Your task to perform on an android device: add a label to a message in the gmail app Image 0: 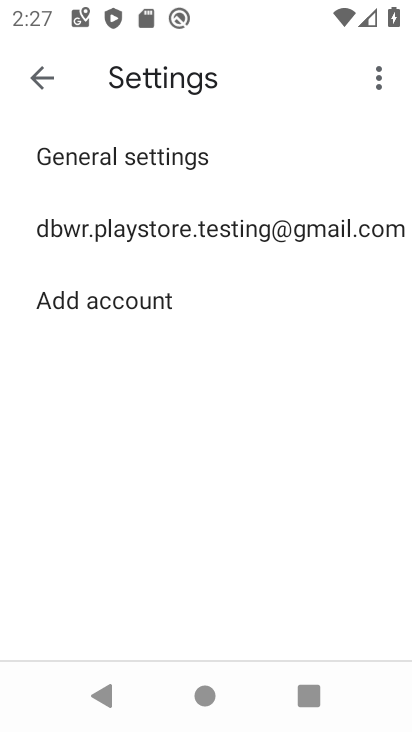
Step 0: press home button
Your task to perform on an android device: add a label to a message in the gmail app Image 1: 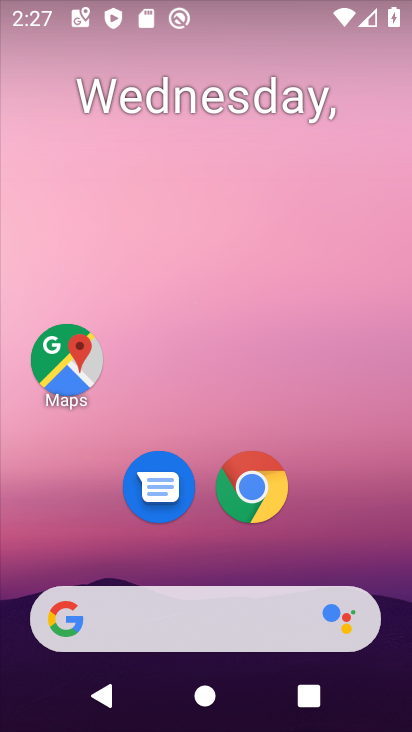
Step 1: drag from (336, 541) to (220, 64)
Your task to perform on an android device: add a label to a message in the gmail app Image 2: 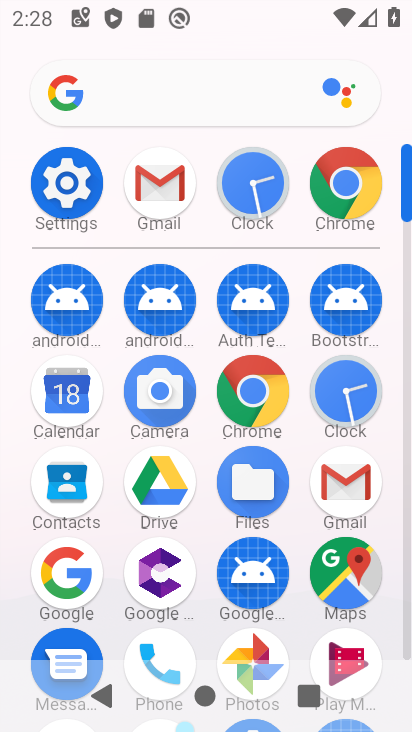
Step 2: click (340, 498)
Your task to perform on an android device: add a label to a message in the gmail app Image 3: 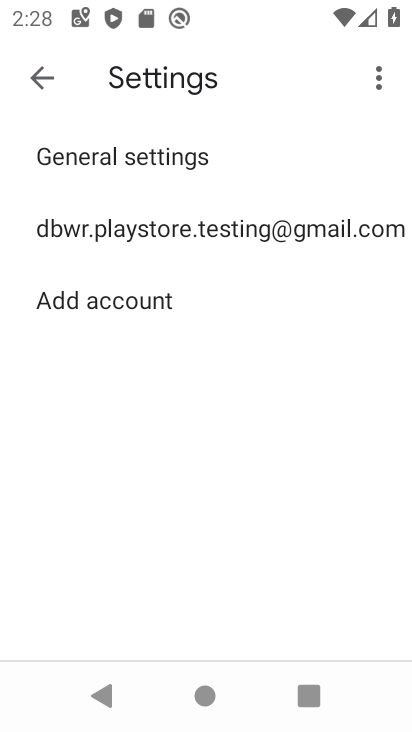
Step 3: click (30, 77)
Your task to perform on an android device: add a label to a message in the gmail app Image 4: 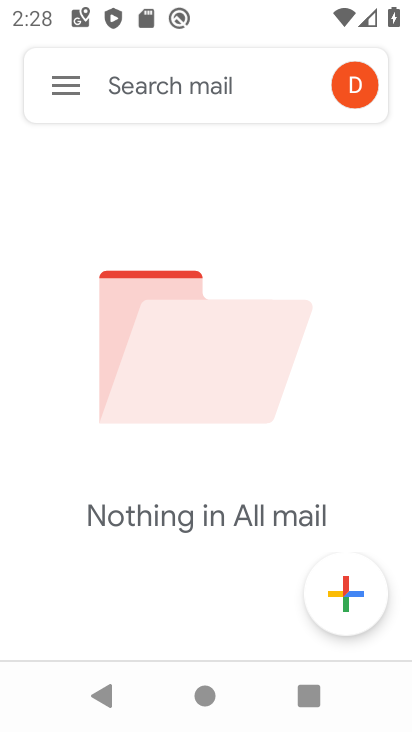
Step 4: click (62, 81)
Your task to perform on an android device: add a label to a message in the gmail app Image 5: 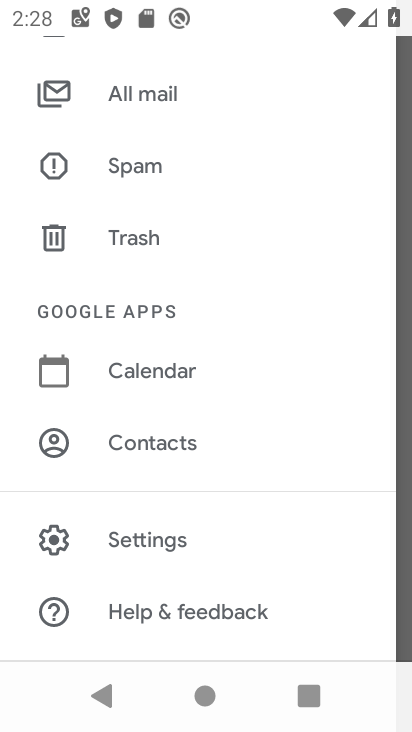
Step 5: click (141, 78)
Your task to perform on an android device: add a label to a message in the gmail app Image 6: 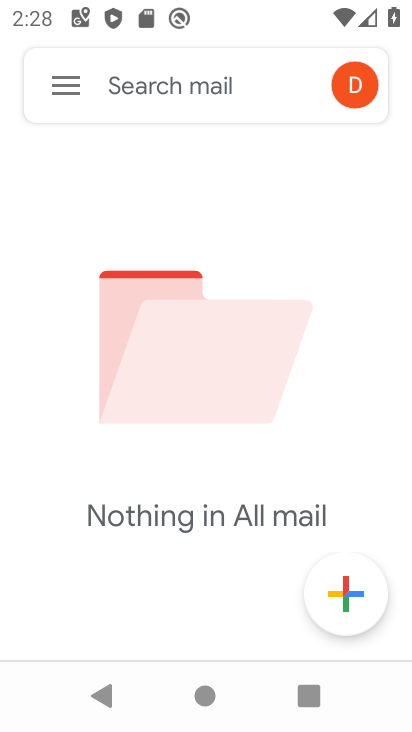
Step 6: task complete